Your task to perform on an android device: search for starred emails in the gmail app Image 0: 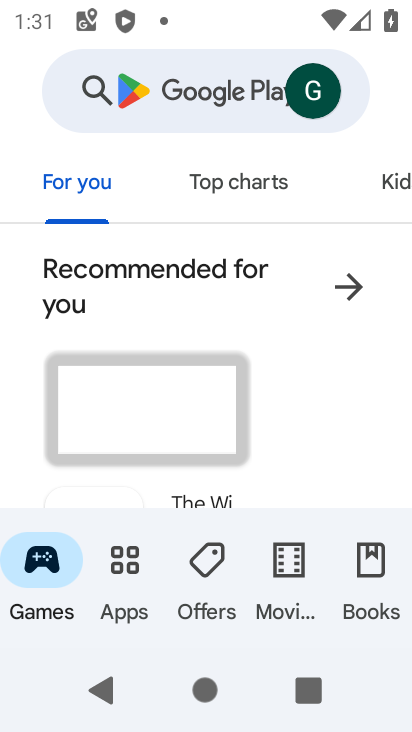
Step 0: press home button
Your task to perform on an android device: search for starred emails in the gmail app Image 1: 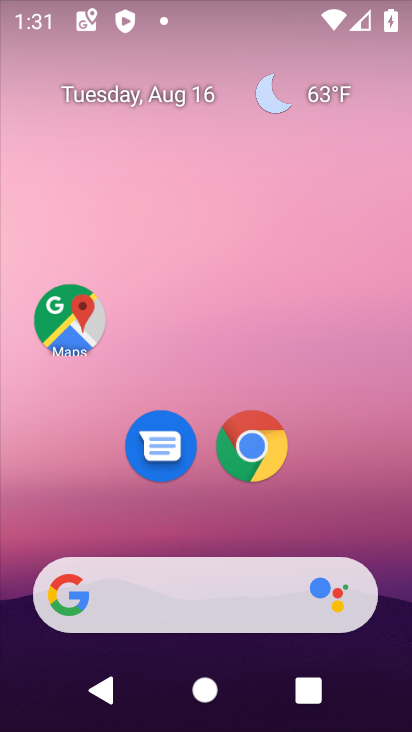
Step 1: drag from (214, 519) to (210, 7)
Your task to perform on an android device: search for starred emails in the gmail app Image 2: 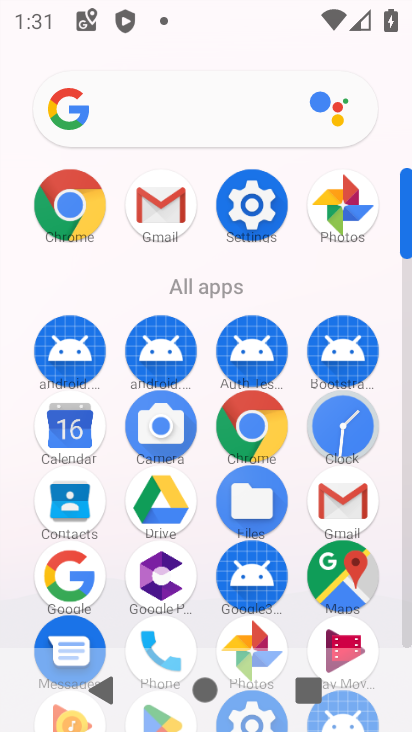
Step 2: click (157, 199)
Your task to perform on an android device: search for starred emails in the gmail app Image 3: 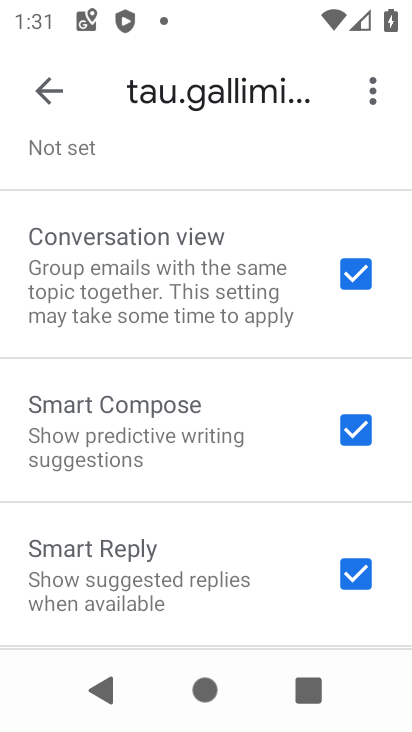
Step 3: click (60, 85)
Your task to perform on an android device: search for starred emails in the gmail app Image 4: 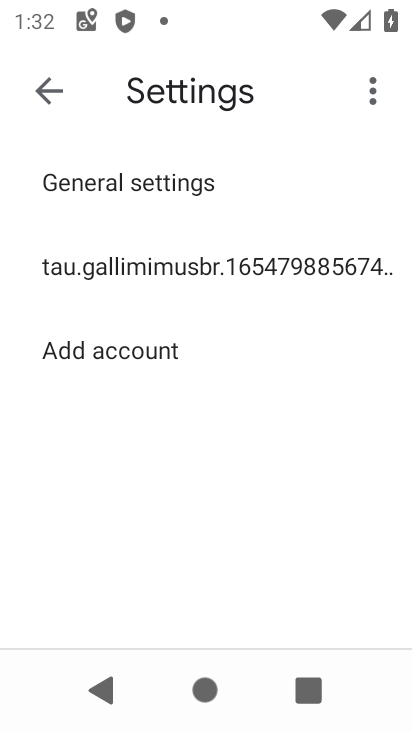
Step 4: click (58, 89)
Your task to perform on an android device: search for starred emails in the gmail app Image 5: 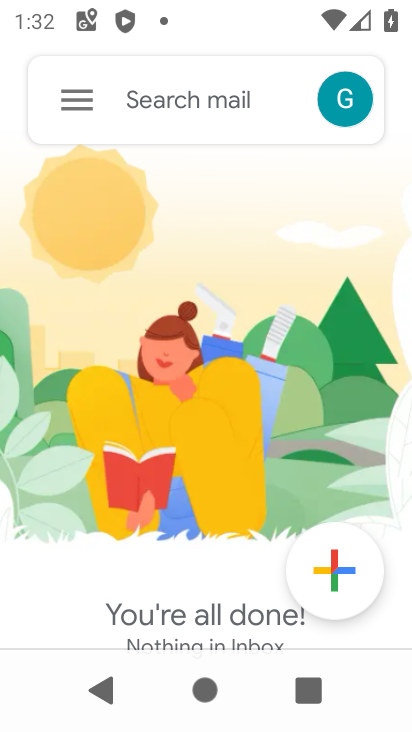
Step 5: click (63, 97)
Your task to perform on an android device: search for starred emails in the gmail app Image 6: 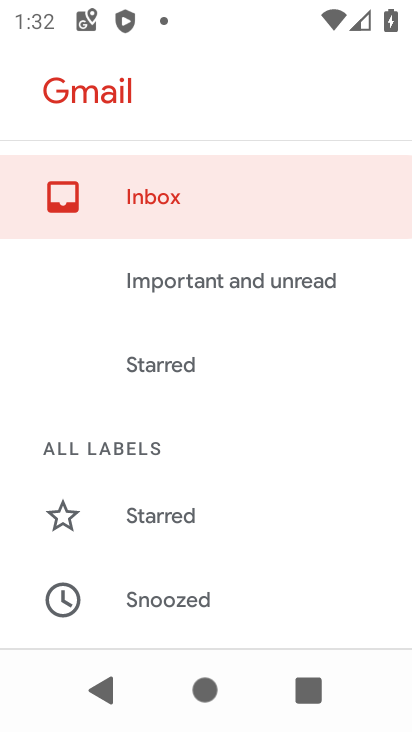
Step 6: click (118, 504)
Your task to perform on an android device: search for starred emails in the gmail app Image 7: 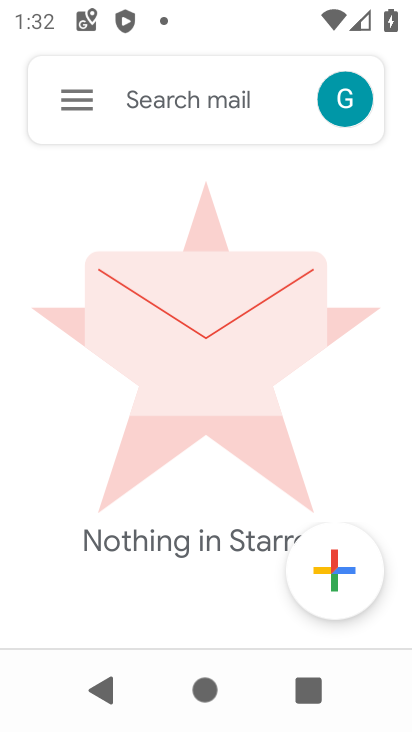
Step 7: task complete